Your task to perform on an android device: Go to calendar. Show me events next week Image 0: 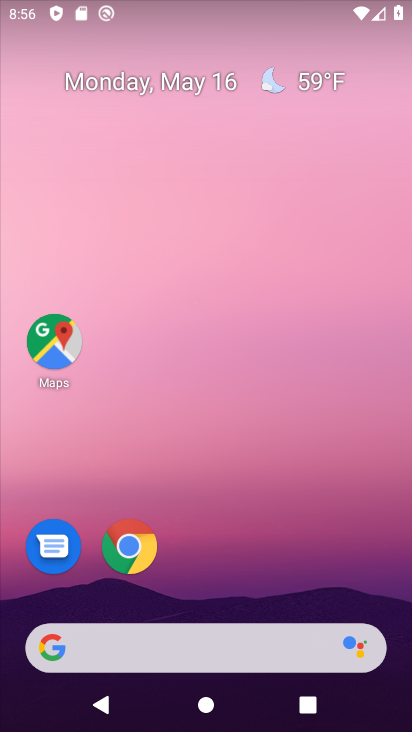
Step 0: click (167, 101)
Your task to perform on an android device: Go to calendar. Show me events next week Image 1: 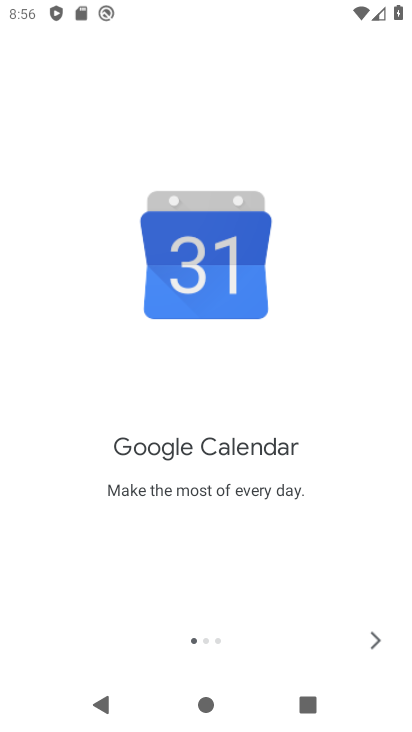
Step 1: click (381, 636)
Your task to perform on an android device: Go to calendar. Show me events next week Image 2: 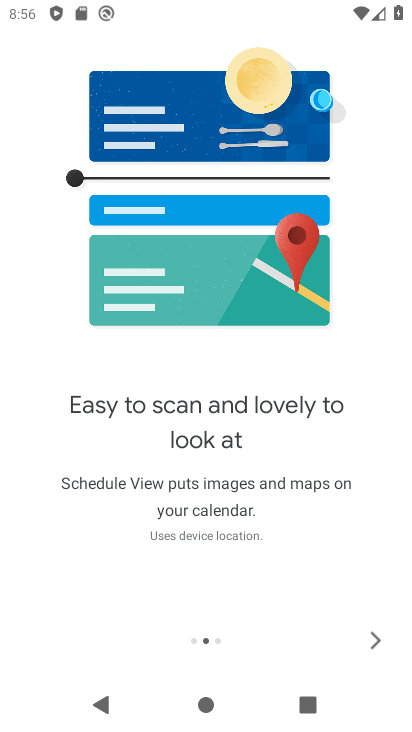
Step 2: click (381, 636)
Your task to perform on an android device: Go to calendar. Show me events next week Image 3: 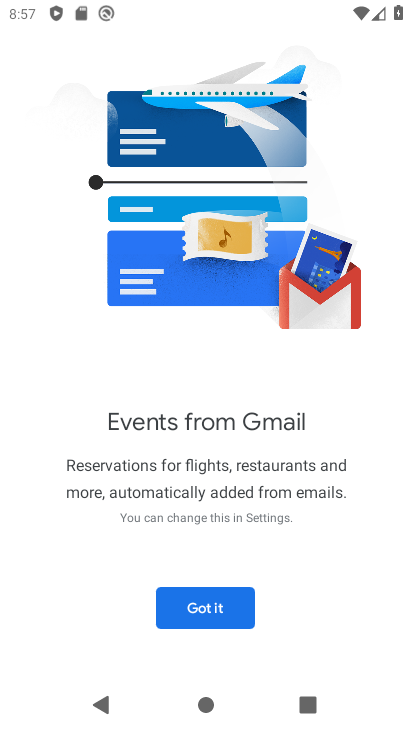
Step 3: click (203, 598)
Your task to perform on an android device: Go to calendar. Show me events next week Image 4: 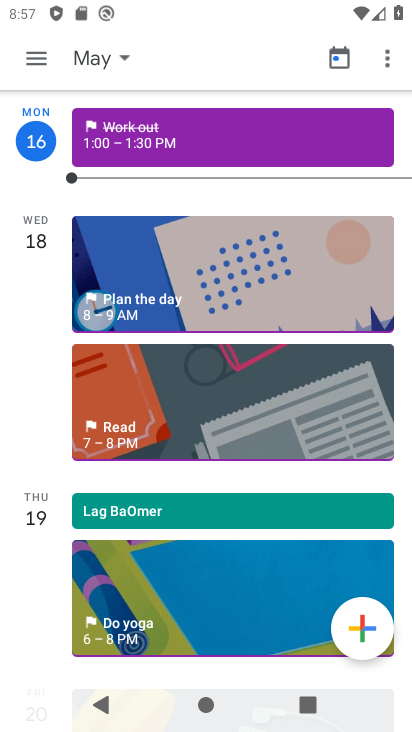
Step 4: click (128, 57)
Your task to perform on an android device: Go to calendar. Show me events next week Image 5: 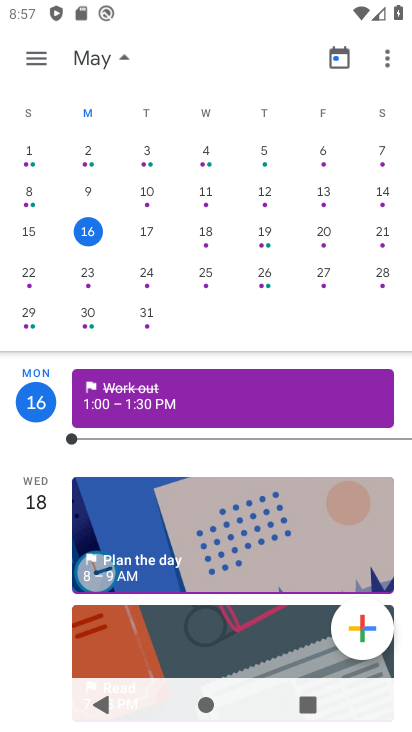
Step 5: click (223, 261)
Your task to perform on an android device: Go to calendar. Show me events next week Image 6: 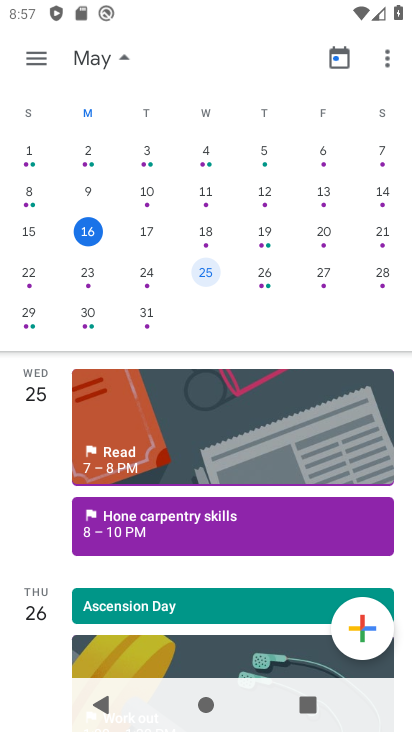
Step 6: task complete